Your task to perform on an android device: What is the news today? Image 0: 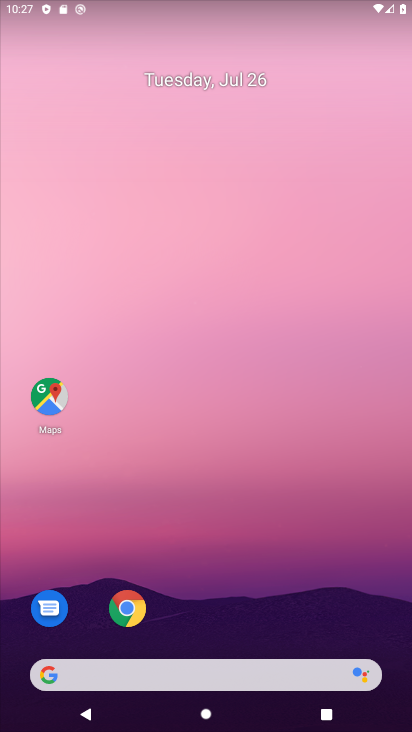
Step 0: drag from (263, 593) to (263, 84)
Your task to perform on an android device: What is the news today? Image 1: 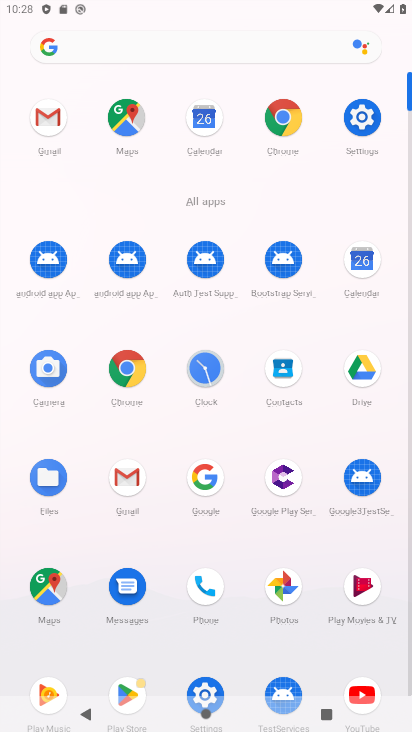
Step 1: click (281, 116)
Your task to perform on an android device: What is the news today? Image 2: 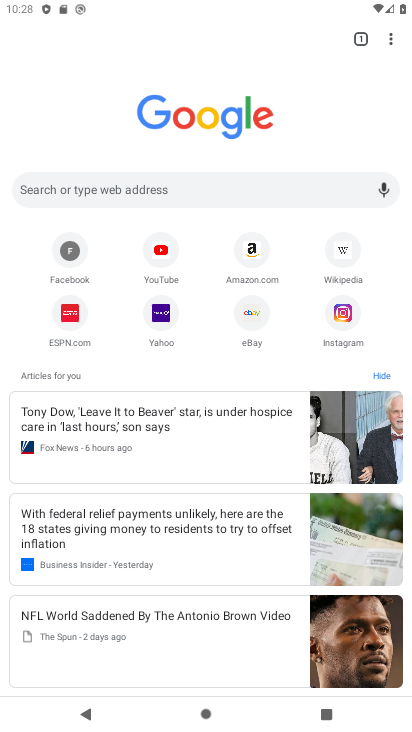
Step 2: click (234, 194)
Your task to perform on an android device: What is the news today? Image 3: 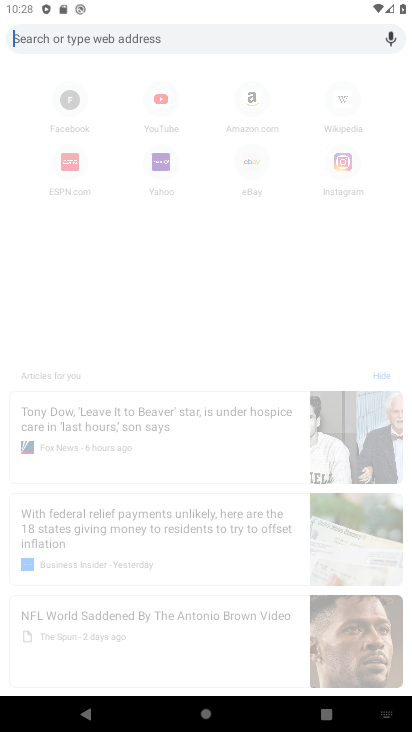
Step 3: type "news"
Your task to perform on an android device: What is the news today? Image 4: 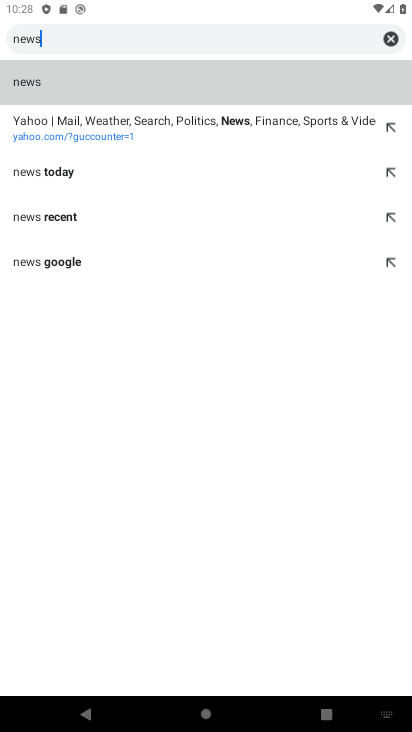
Step 4: click (51, 79)
Your task to perform on an android device: What is the news today? Image 5: 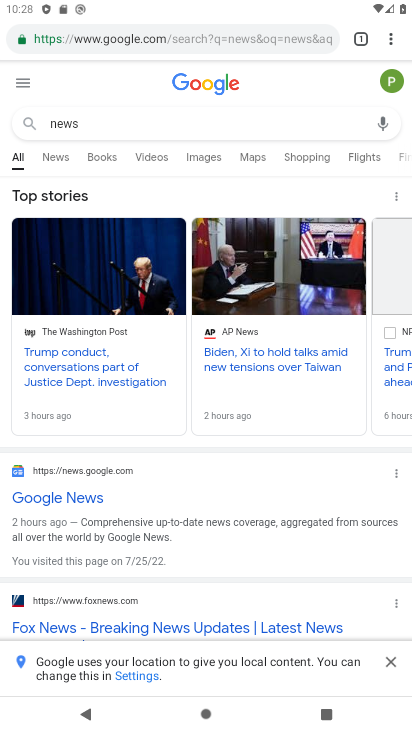
Step 5: click (83, 499)
Your task to perform on an android device: What is the news today? Image 6: 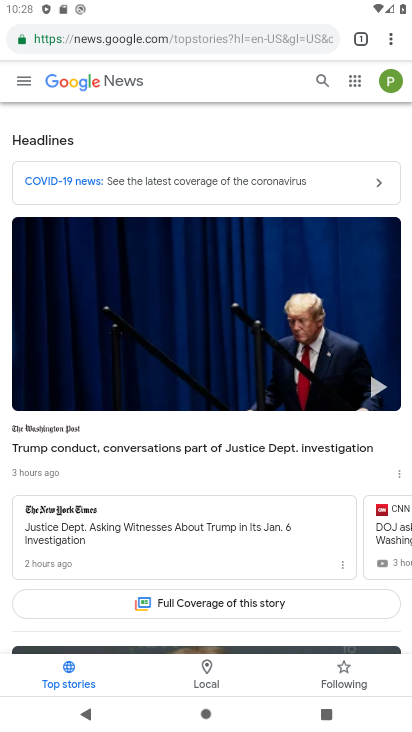
Step 6: task complete